Your task to perform on an android device: turn off notifications in google photos Image 0: 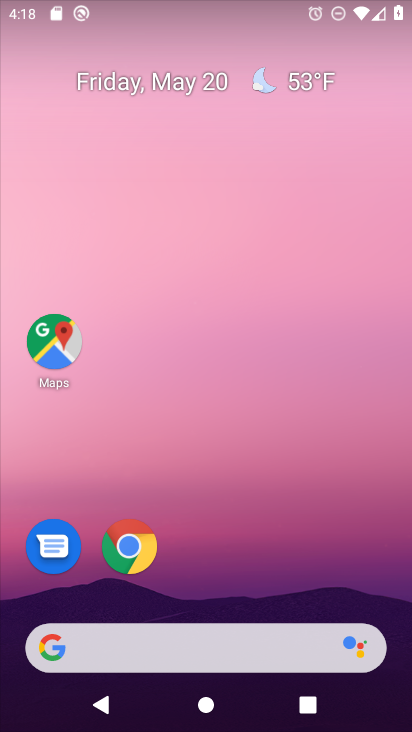
Step 0: drag from (264, 516) to (234, 137)
Your task to perform on an android device: turn off notifications in google photos Image 1: 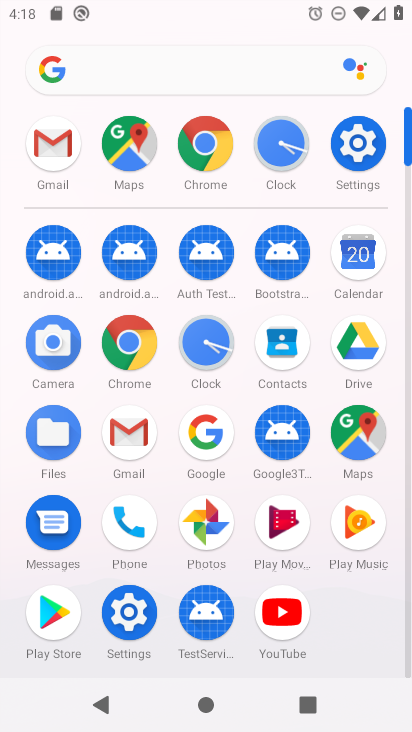
Step 1: click (207, 525)
Your task to perform on an android device: turn off notifications in google photos Image 2: 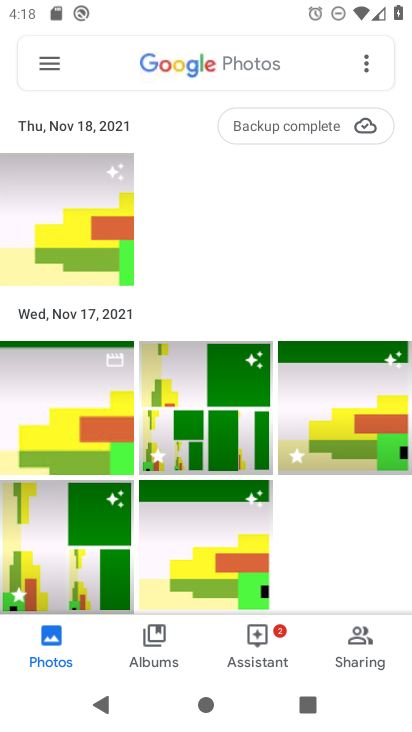
Step 2: click (37, 71)
Your task to perform on an android device: turn off notifications in google photos Image 3: 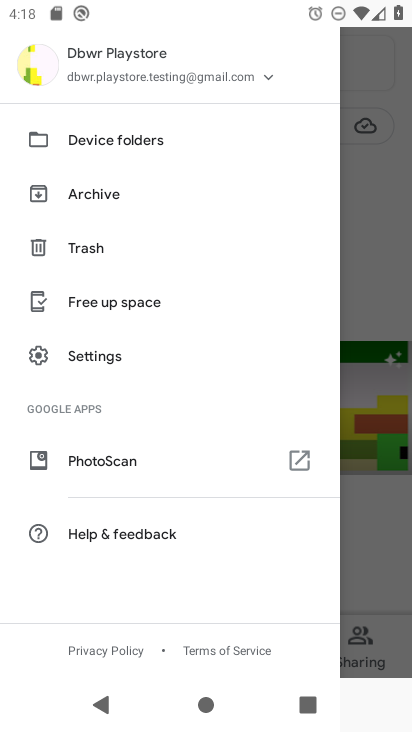
Step 3: click (110, 362)
Your task to perform on an android device: turn off notifications in google photos Image 4: 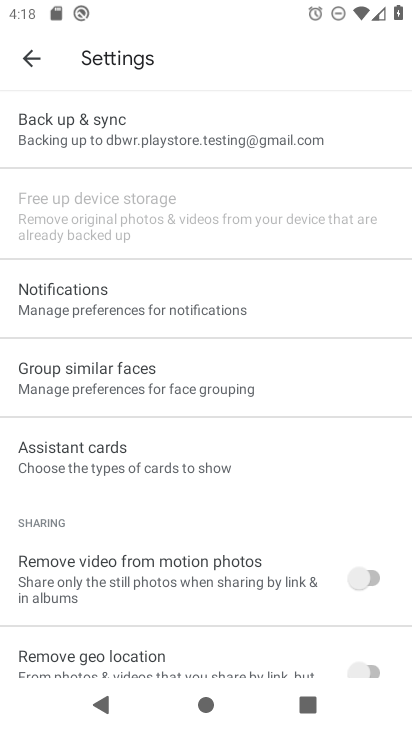
Step 4: click (148, 312)
Your task to perform on an android device: turn off notifications in google photos Image 5: 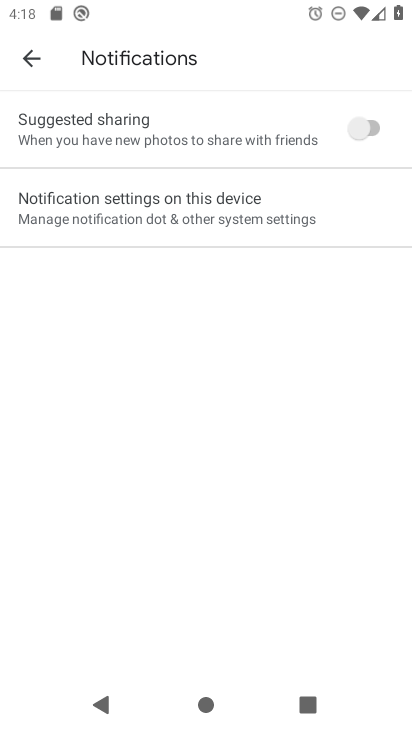
Step 5: click (121, 222)
Your task to perform on an android device: turn off notifications in google photos Image 6: 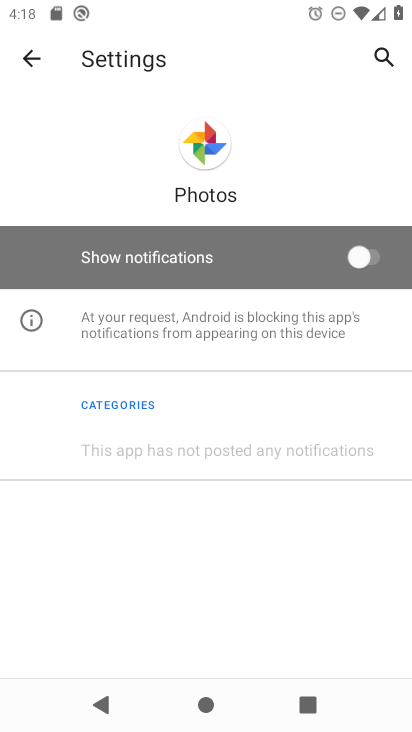
Step 6: task complete